Your task to perform on an android device: Go to accessibility settings Image 0: 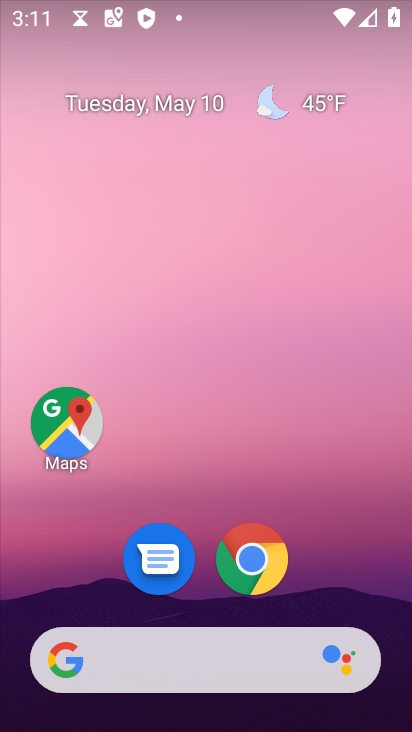
Step 0: drag from (347, 640) to (0, 28)
Your task to perform on an android device: Go to accessibility settings Image 1: 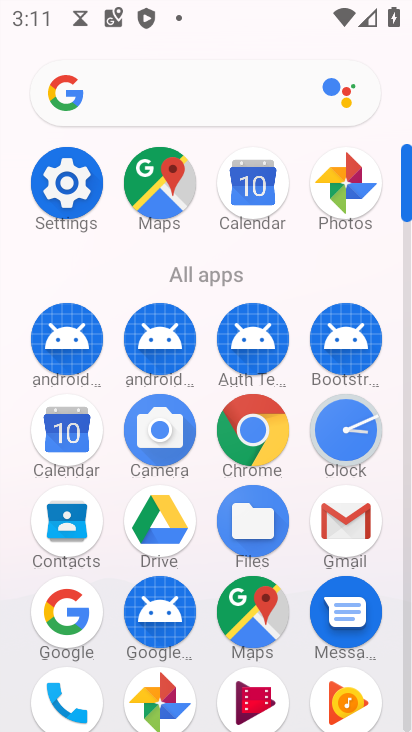
Step 1: click (51, 184)
Your task to perform on an android device: Go to accessibility settings Image 2: 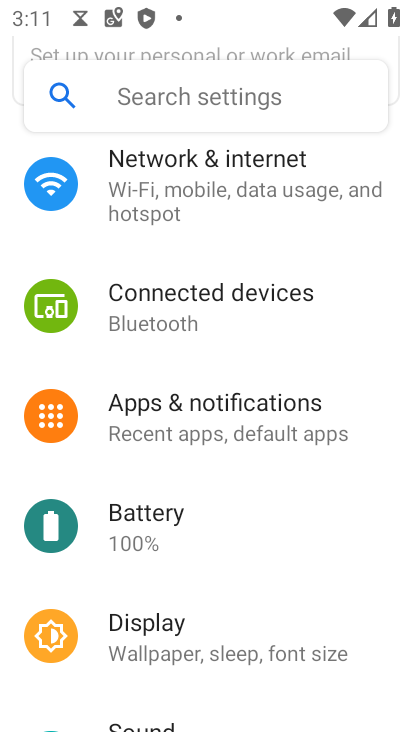
Step 2: drag from (222, 549) to (128, 122)
Your task to perform on an android device: Go to accessibility settings Image 3: 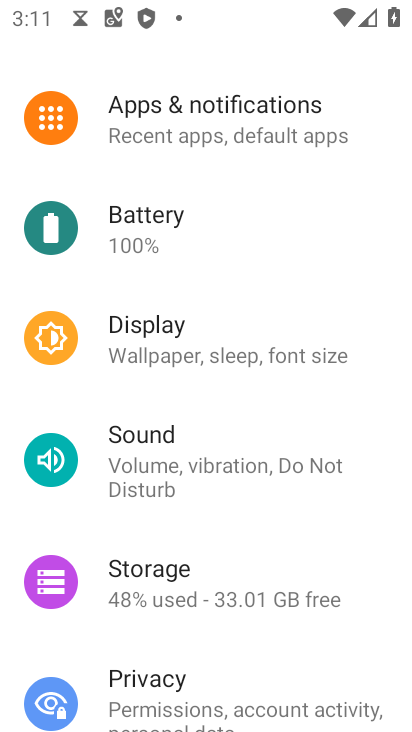
Step 3: drag from (219, 439) to (197, 20)
Your task to perform on an android device: Go to accessibility settings Image 4: 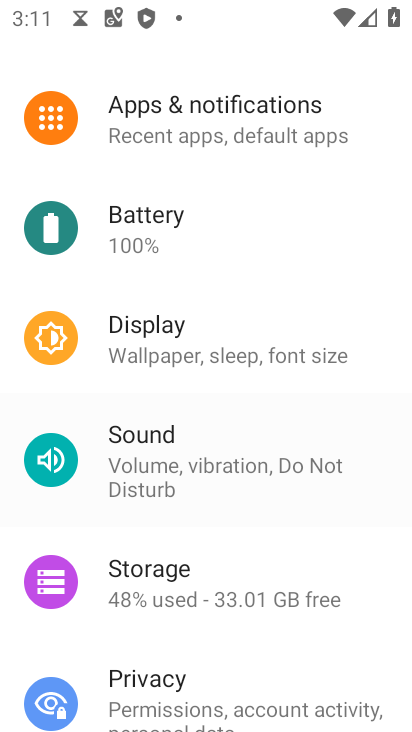
Step 4: drag from (225, 428) to (206, 71)
Your task to perform on an android device: Go to accessibility settings Image 5: 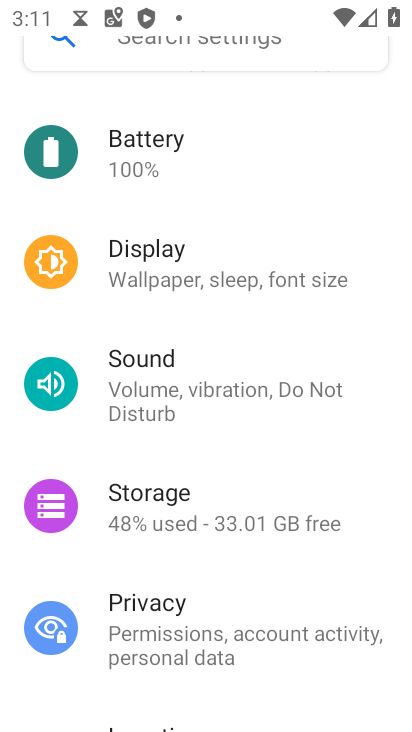
Step 5: drag from (190, 537) to (145, 18)
Your task to perform on an android device: Go to accessibility settings Image 6: 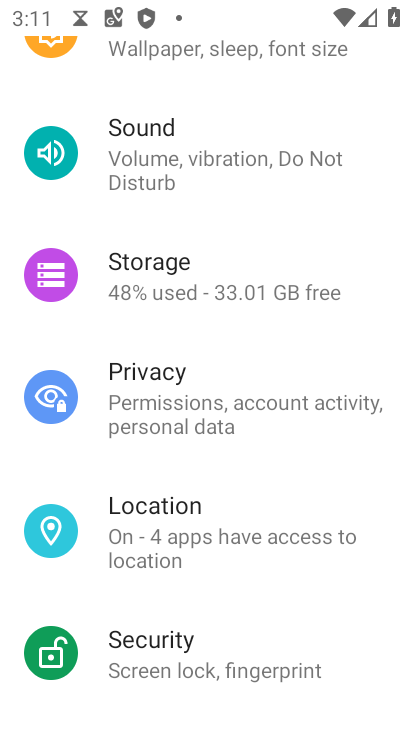
Step 6: drag from (267, 582) to (180, 30)
Your task to perform on an android device: Go to accessibility settings Image 7: 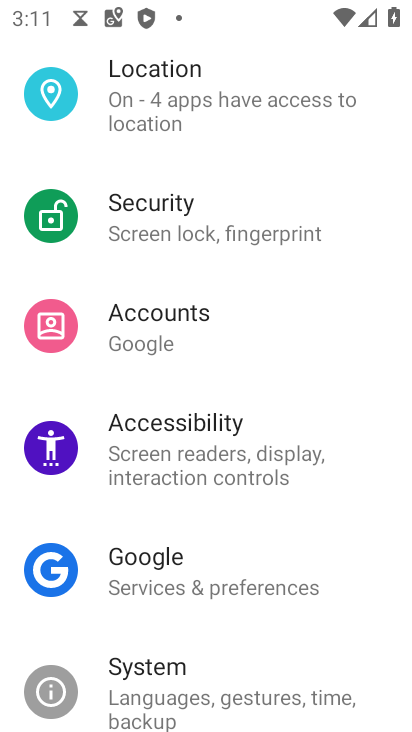
Step 7: drag from (194, 559) to (183, 56)
Your task to perform on an android device: Go to accessibility settings Image 8: 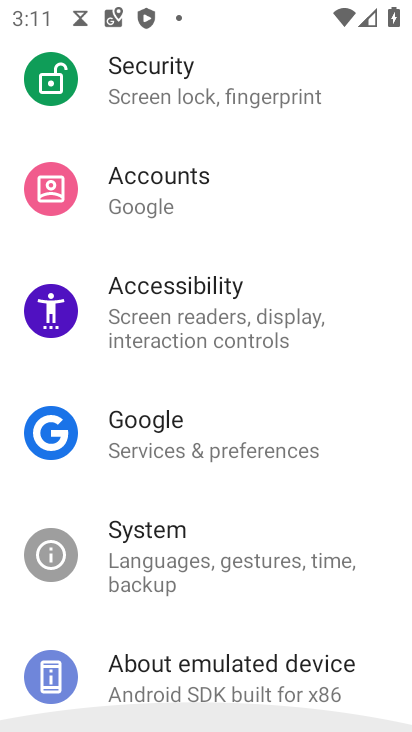
Step 8: drag from (323, 572) to (243, 32)
Your task to perform on an android device: Go to accessibility settings Image 9: 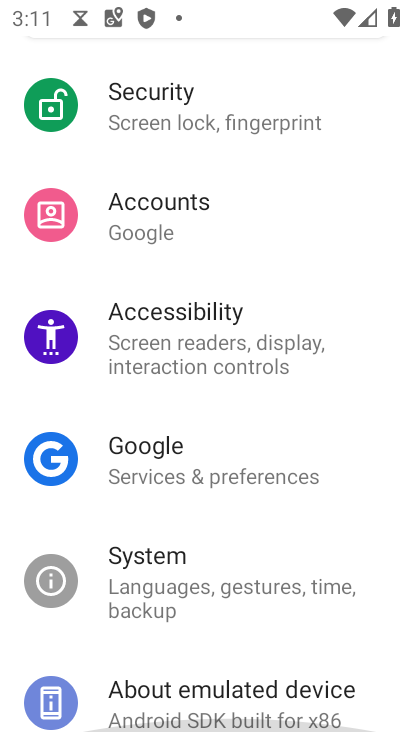
Step 9: drag from (263, 509) to (186, 92)
Your task to perform on an android device: Go to accessibility settings Image 10: 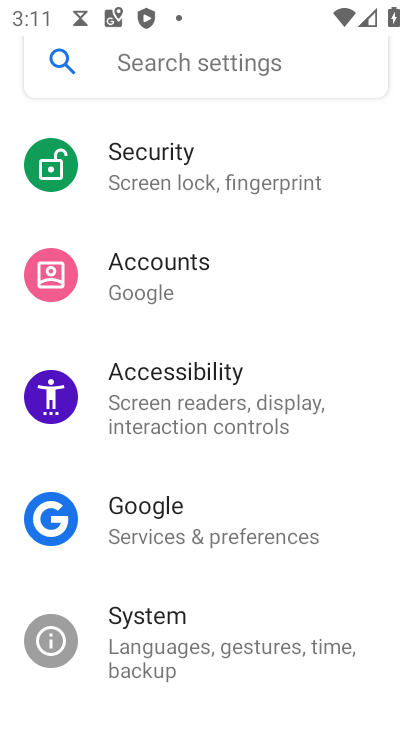
Step 10: drag from (259, 545) to (171, 53)
Your task to perform on an android device: Go to accessibility settings Image 11: 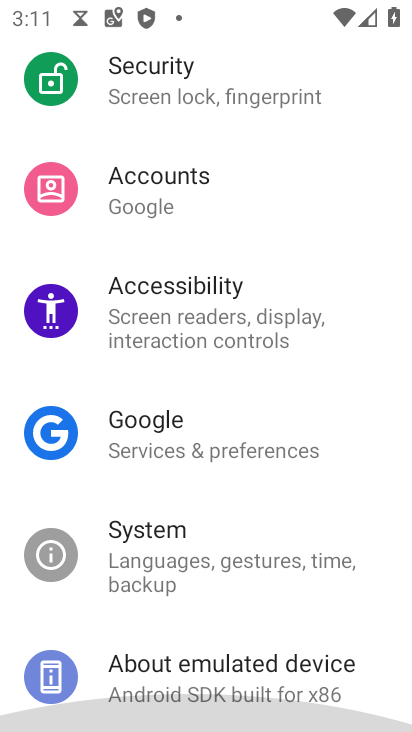
Step 11: drag from (195, 569) to (108, 96)
Your task to perform on an android device: Go to accessibility settings Image 12: 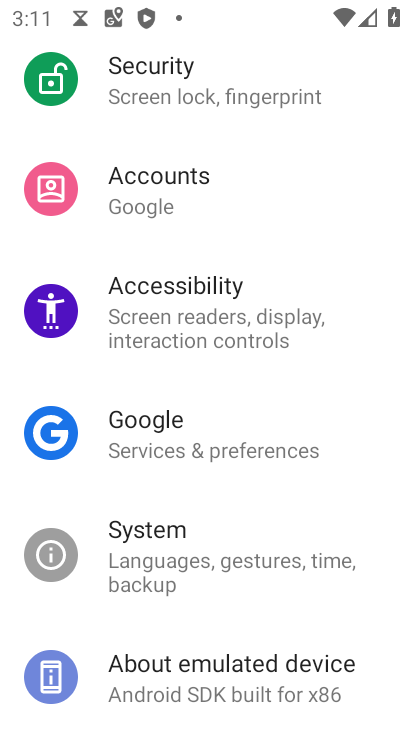
Step 12: click (148, 331)
Your task to perform on an android device: Go to accessibility settings Image 13: 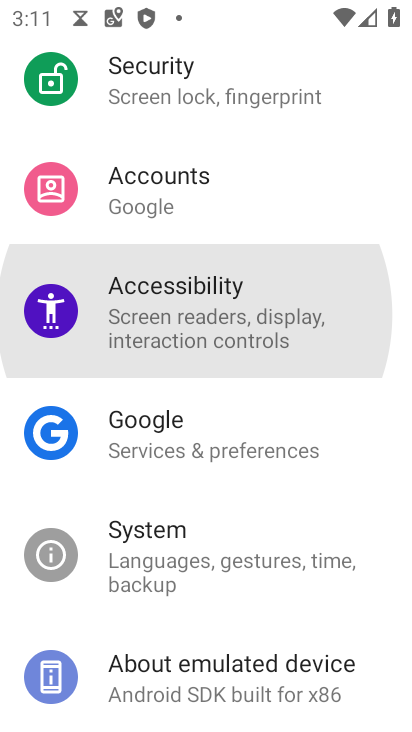
Step 13: click (148, 331)
Your task to perform on an android device: Go to accessibility settings Image 14: 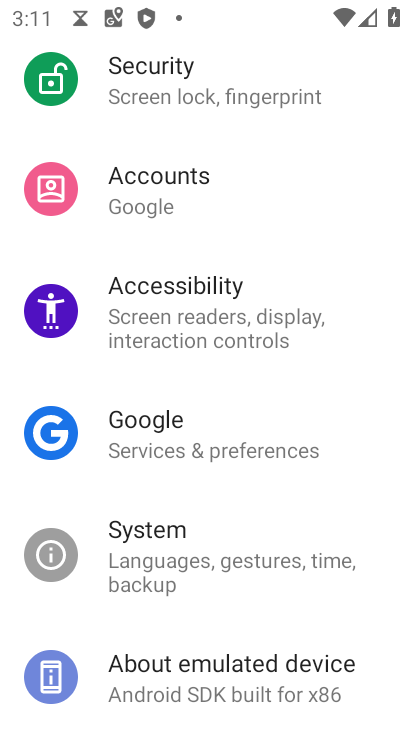
Step 14: click (148, 331)
Your task to perform on an android device: Go to accessibility settings Image 15: 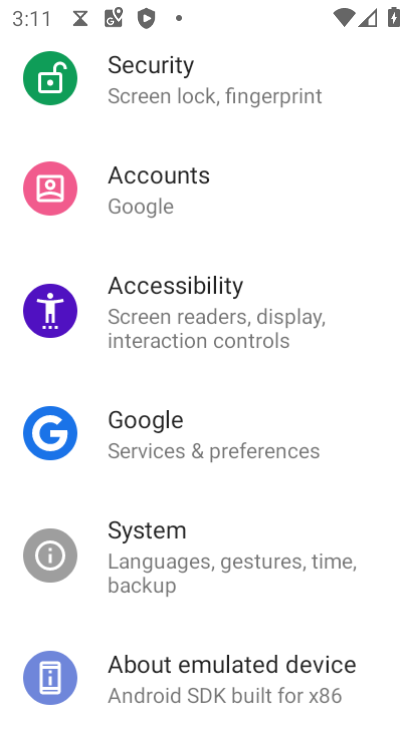
Step 15: click (148, 331)
Your task to perform on an android device: Go to accessibility settings Image 16: 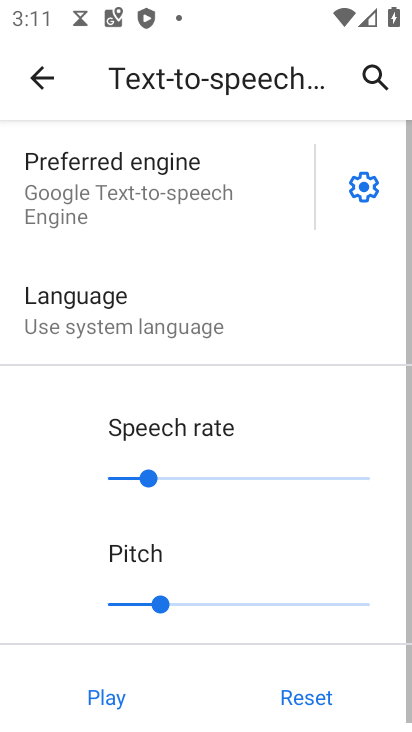
Step 16: click (37, 78)
Your task to perform on an android device: Go to accessibility settings Image 17: 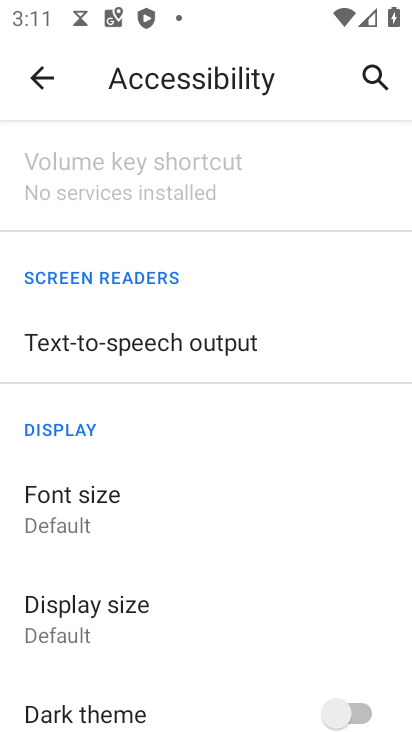
Step 17: task complete